Your task to perform on an android device: turn off javascript in the chrome app Image 0: 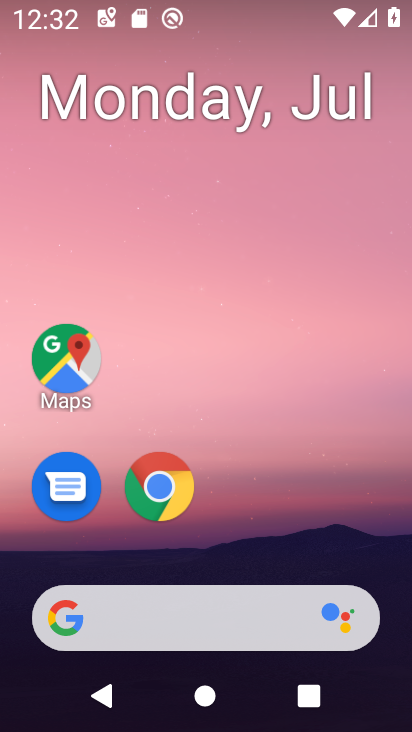
Step 0: press home button
Your task to perform on an android device: turn off javascript in the chrome app Image 1: 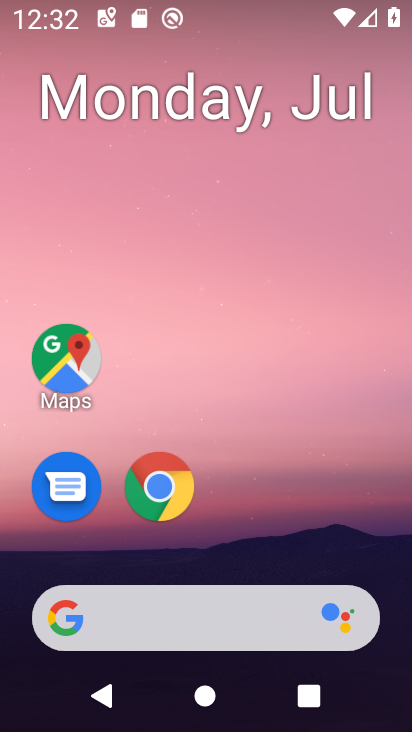
Step 1: drag from (367, 514) to (383, 100)
Your task to perform on an android device: turn off javascript in the chrome app Image 2: 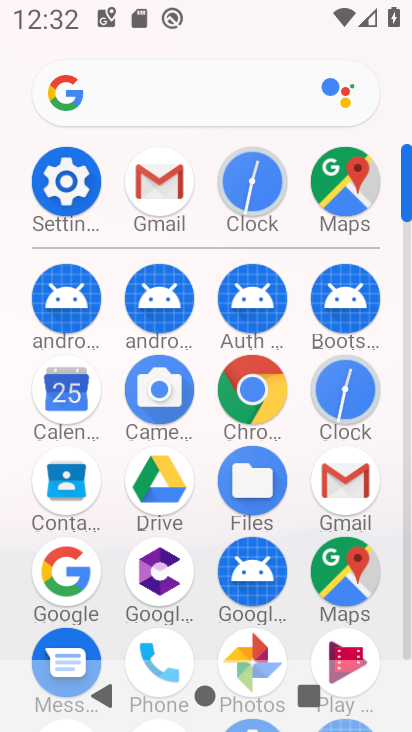
Step 2: click (253, 390)
Your task to perform on an android device: turn off javascript in the chrome app Image 3: 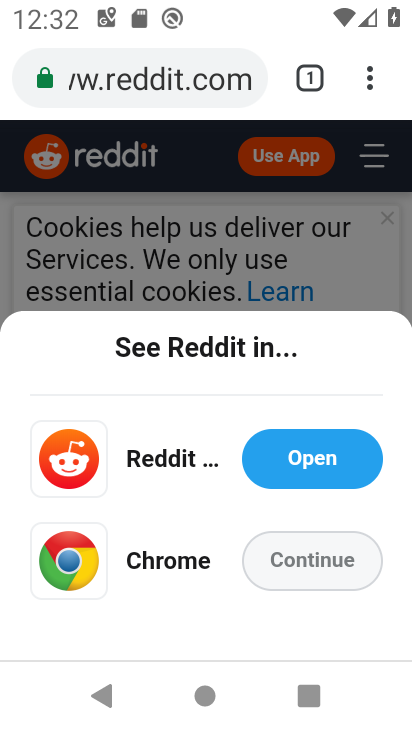
Step 3: click (371, 80)
Your task to perform on an android device: turn off javascript in the chrome app Image 4: 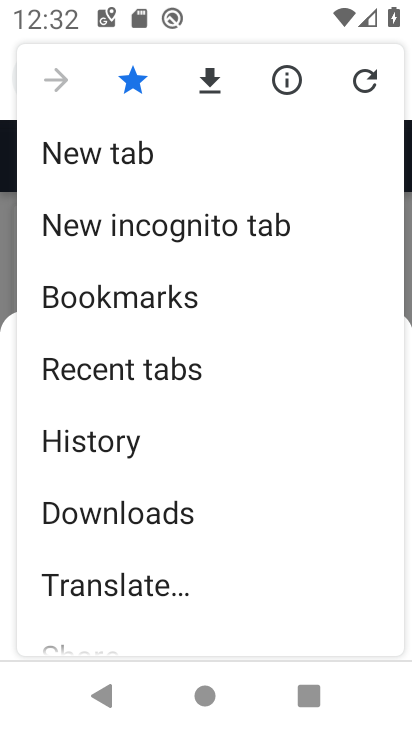
Step 4: drag from (317, 482) to (319, 339)
Your task to perform on an android device: turn off javascript in the chrome app Image 5: 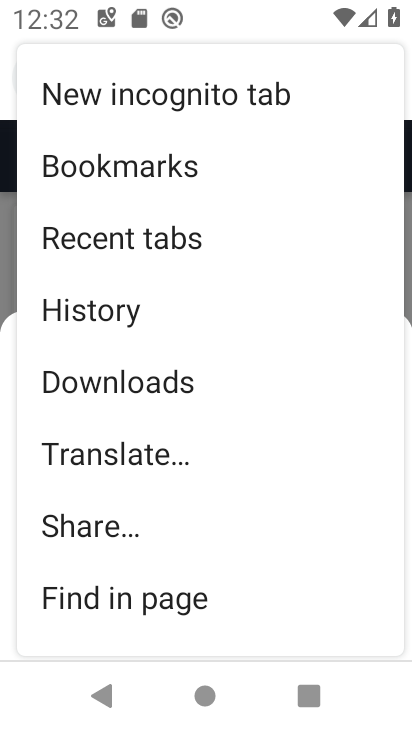
Step 5: drag from (296, 445) to (305, 325)
Your task to perform on an android device: turn off javascript in the chrome app Image 6: 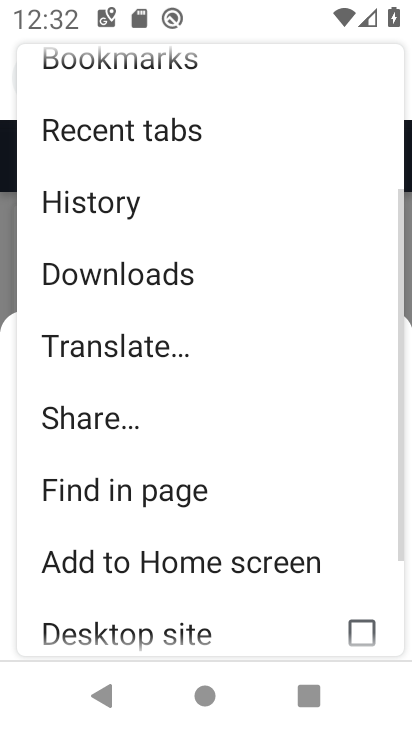
Step 6: drag from (302, 448) to (302, 341)
Your task to perform on an android device: turn off javascript in the chrome app Image 7: 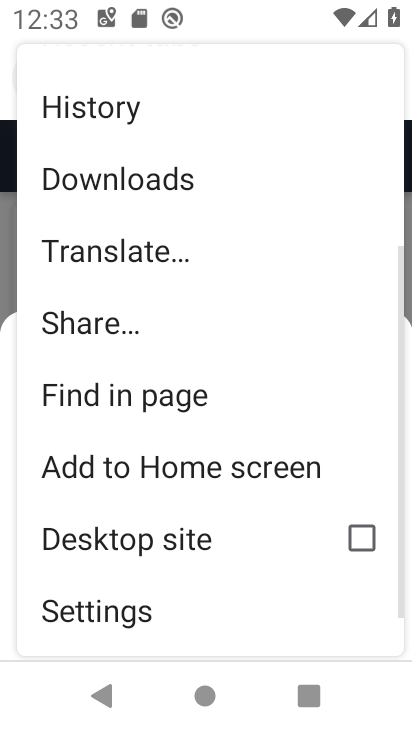
Step 7: drag from (286, 503) to (295, 394)
Your task to perform on an android device: turn off javascript in the chrome app Image 8: 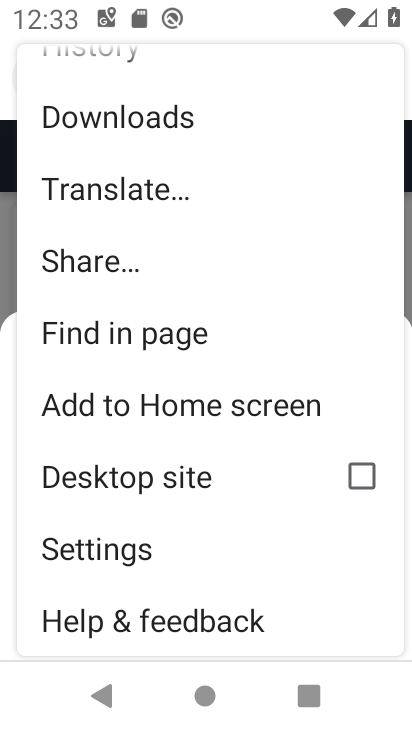
Step 8: drag from (268, 511) to (273, 433)
Your task to perform on an android device: turn off javascript in the chrome app Image 9: 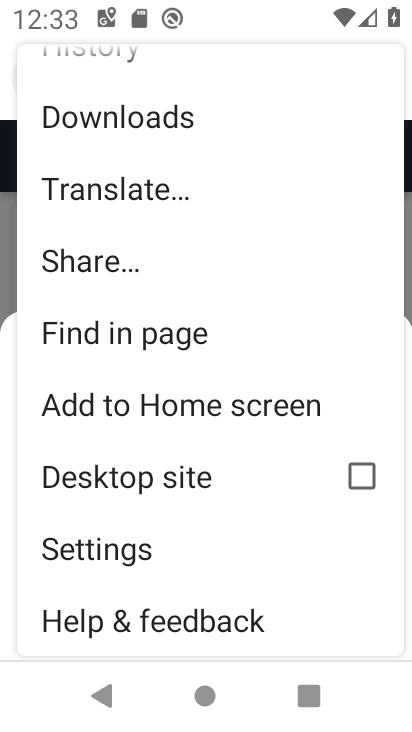
Step 9: click (207, 548)
Your task to perform on an android device: turn off javascript in the chrome app Image 10: 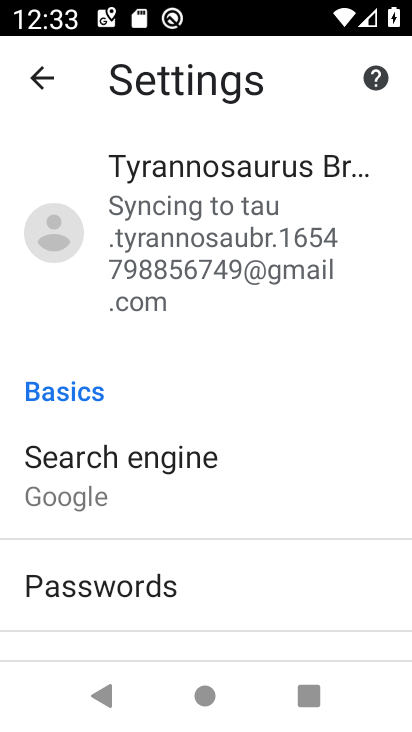
Step 10: drag from (276, 535) to (284, 444)
Your task to perform on an android device: turn off javascript in the chrome app Image 11: 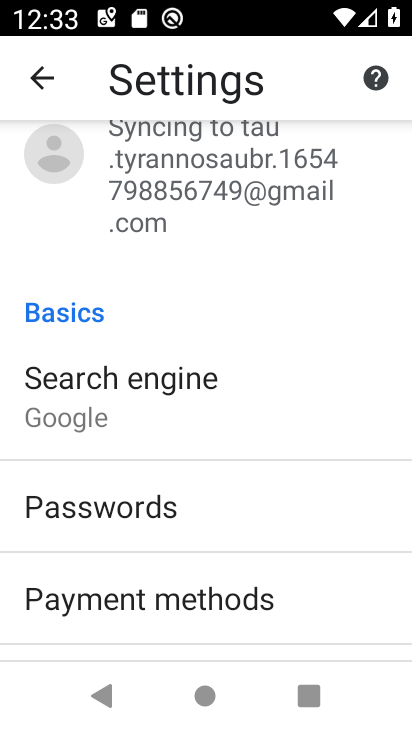
Step 11: drag from (324, 579) to (329, 464)
Your task to perform on an android device: turn off javascript in the chrome app Image 12: 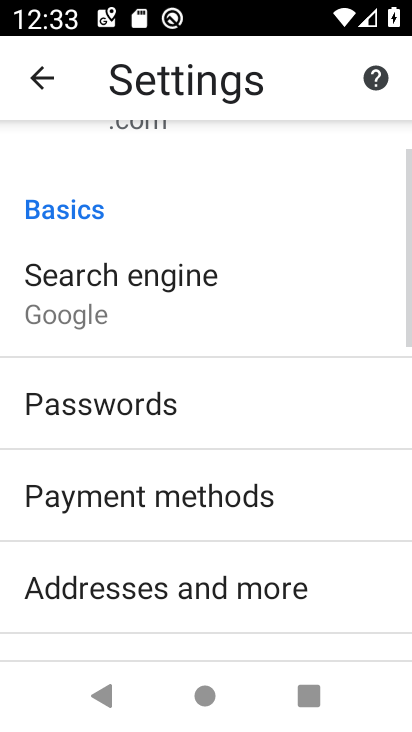
Step 12: drag from (338, 567) to (342, 449)
Your task to perform on an android device: turn off javascript in the chrome app Image 13: 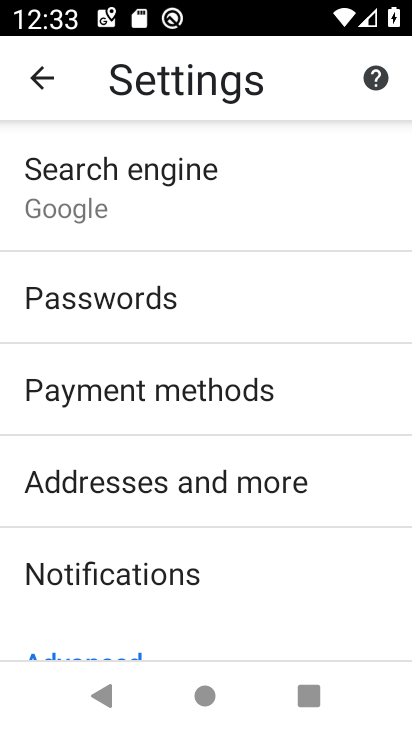
Step 13: drag from (334, 517) to (336, 427)
Your task to perform on an android device: turn off javascript in the chrome app Image 14: 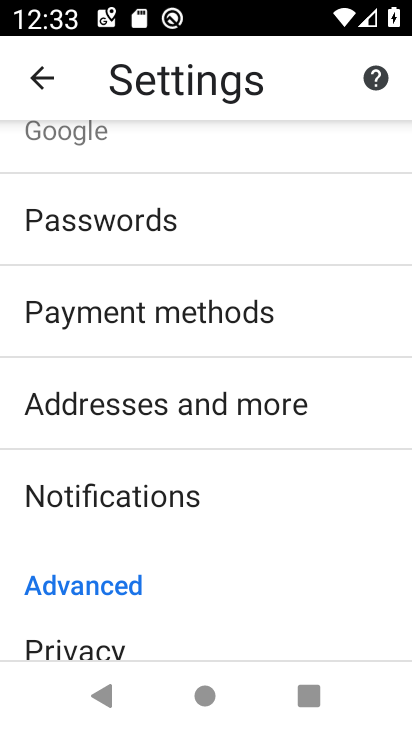
Step 14: drag from (330, 528) to (336, 423)
Your task to perform on an android device: turn off javascript in the chrome app Image 15: 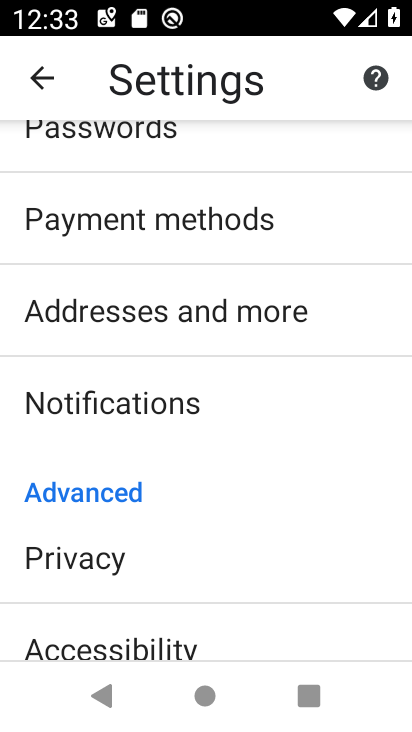
Step 15: drag from (308, 537) to (309, 421)
Your task to perform on an android device: turn off javascript in the chrome app Image 16: 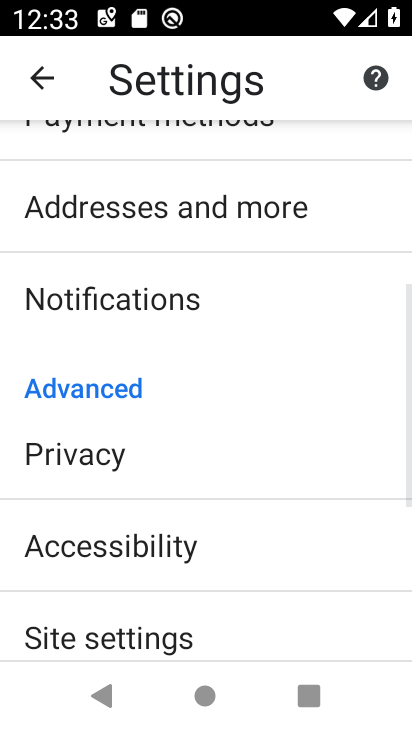
Step 16: drag from (289, 539) to (283, 440)
Your task to perform on an android device: turn off javascript in the chrome app Image 17: 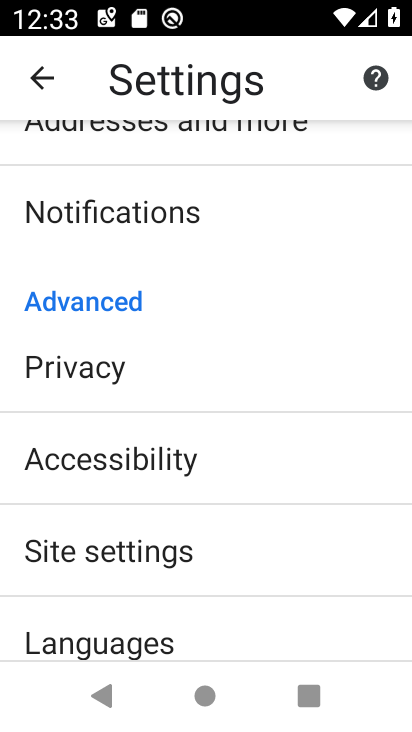
Step 17: click (261, 550)
Your task to perform on an android device: turn off javascript in the chrome app Image 18: 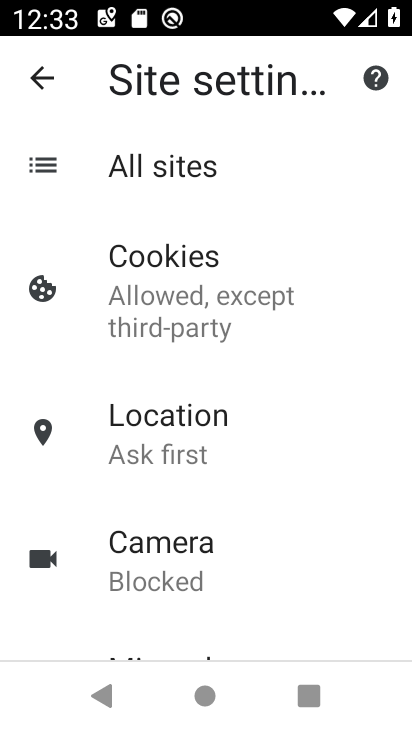
Step 18: drag from (297, 542) to (293, 459)
Your task to perform on an android device: turn off javascript in the chrome app Image 19: 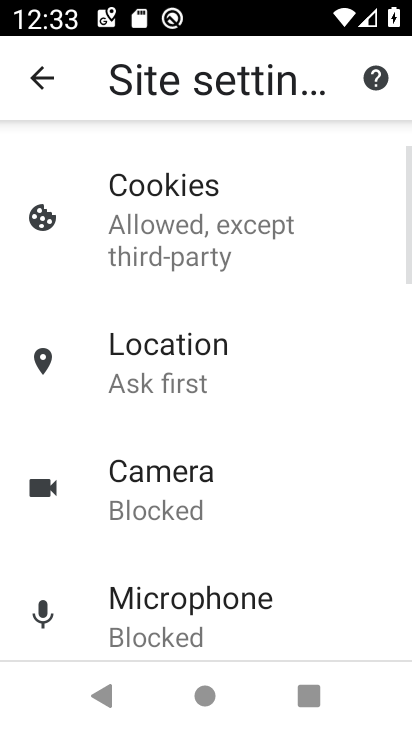
Step 19: drag from (317, 565) to (319, 469)
Your task to perform on an android device: turn off javascript in the chrome app Image 20: 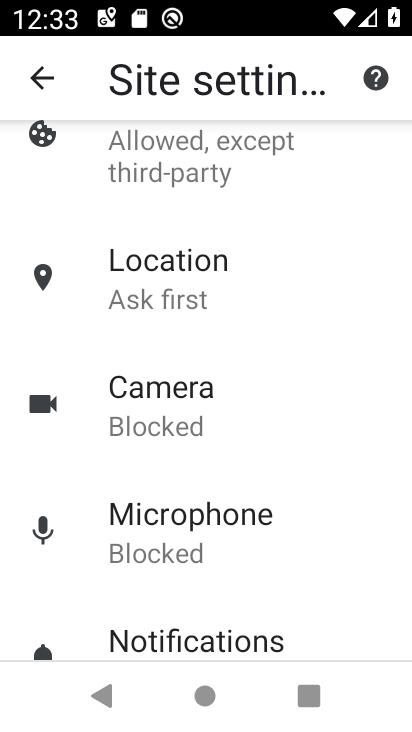
Step 20: drag from (316, 450) to (317, 340)
Your task to perform on an android device: turn off javascript in the chrome app Image 21: 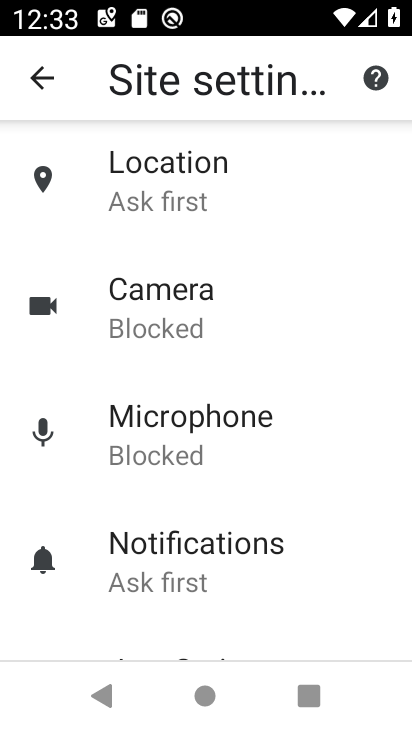
Step 21: drag from (330, 570) to (334, 402)
Your task to perform on an android device: turn off javascript in the chrome app Image 22: 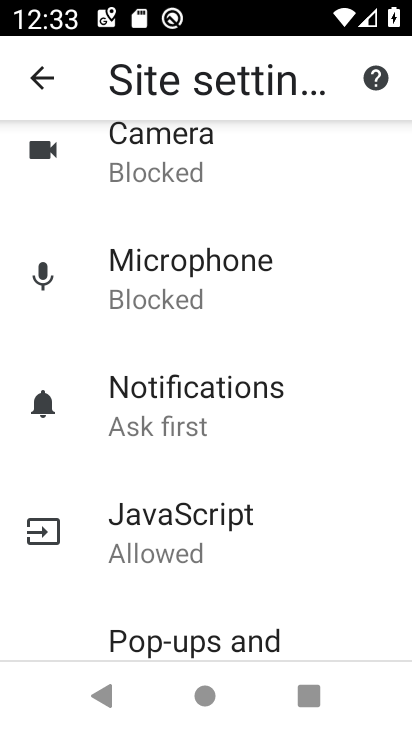
Step 22: click (301, 526)
Your task to perform on an android device: turn off javascript in the chrome app Image 23: 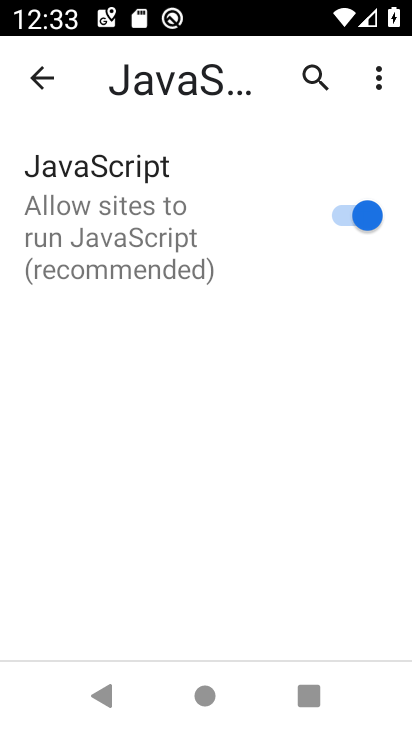
Step 23: click (367, 222)
Your task to perform on an android device: turn off javascript in the chrome app Image 24: 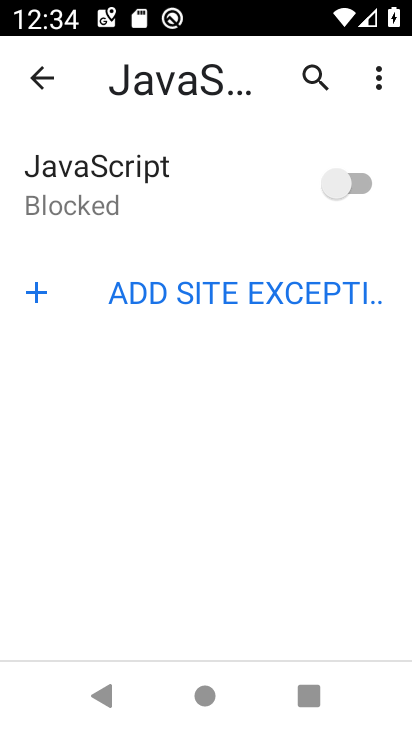
Step 24: task complete